Your task to perform on an android device: Toggle the flashlight Image 0: 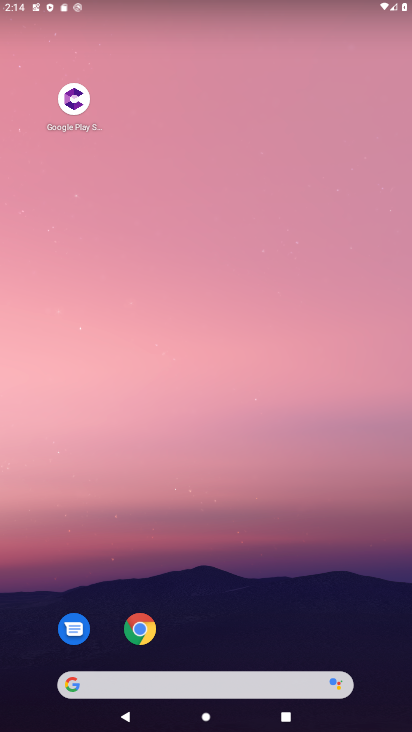
Step 0: drag from (366, 9) to (364, 607)
Your task to perform on an android device: Toggle the flashlight Image 1: 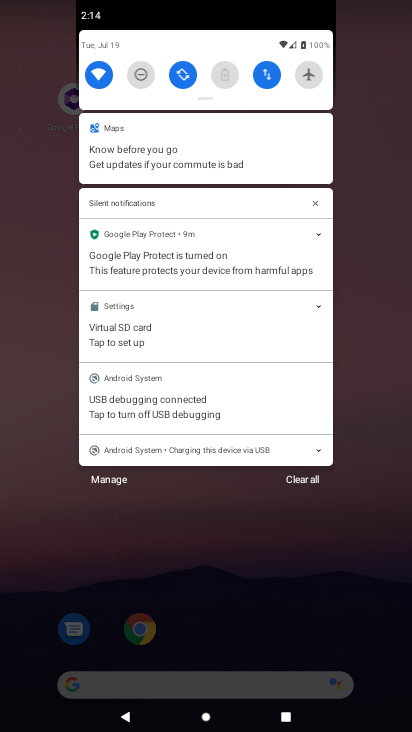
Step 1: task complete